Your task to perform on an android device: Go to internet settings Image 0: 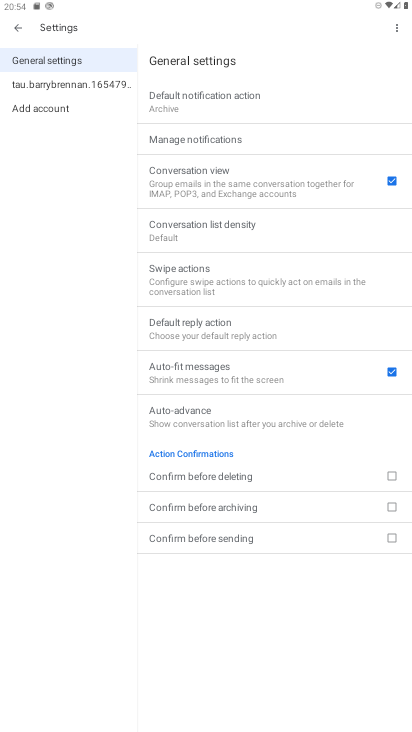
Step 0: press home button
Your task to perform on an android device: Go to internet settings Image 1: 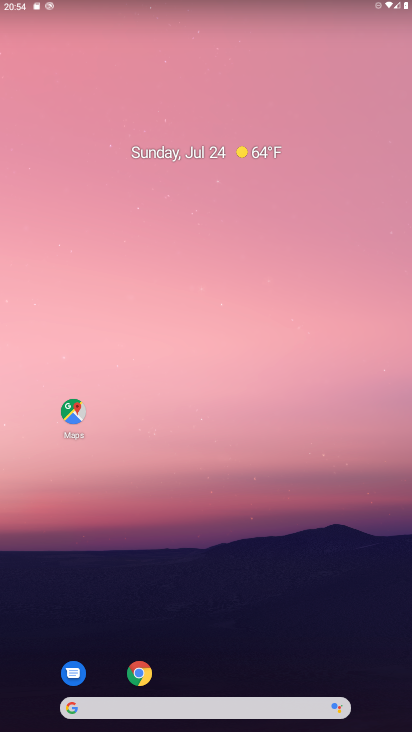
Step 1: drag from (283, 597) to (292, 90)
Your task to perform on an android device: Go to internet settings Image 2: 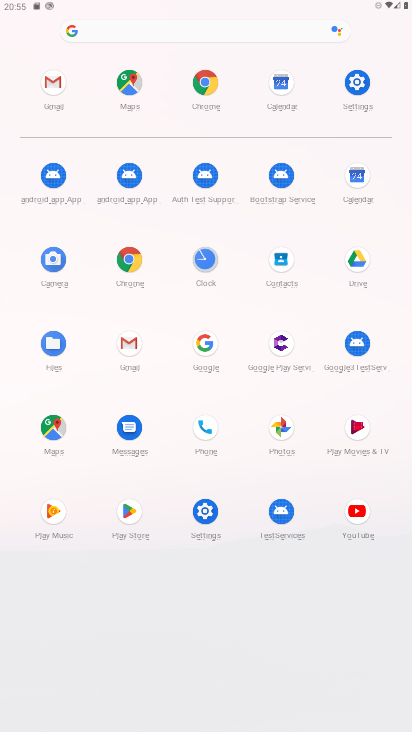
Step 2: click (207, 518)
Your task to perform on an android device: Go to internet settings Image 3: 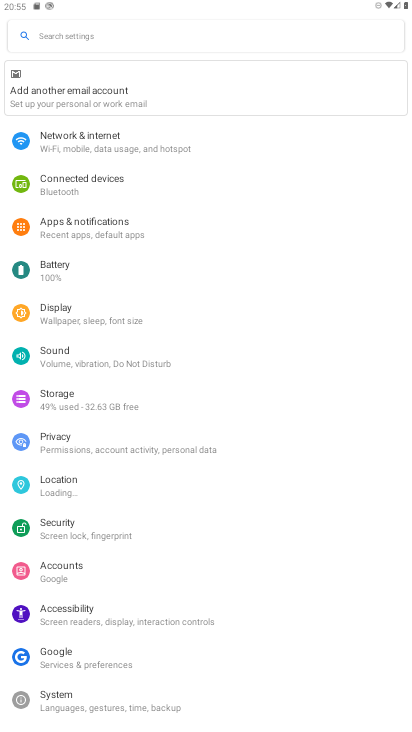
Step 3: click (112, 144)
Your task to perform on an android device: Go to internet settings Image 4: 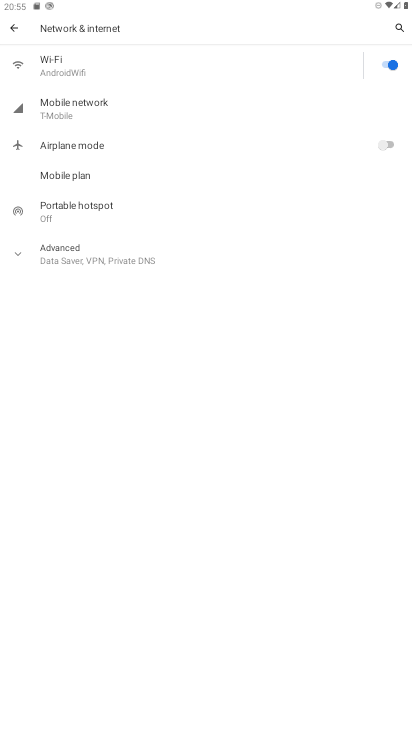
Step 4: task complete